Your task to perform on an android device: refresh tabs in the chrome app Image 0: 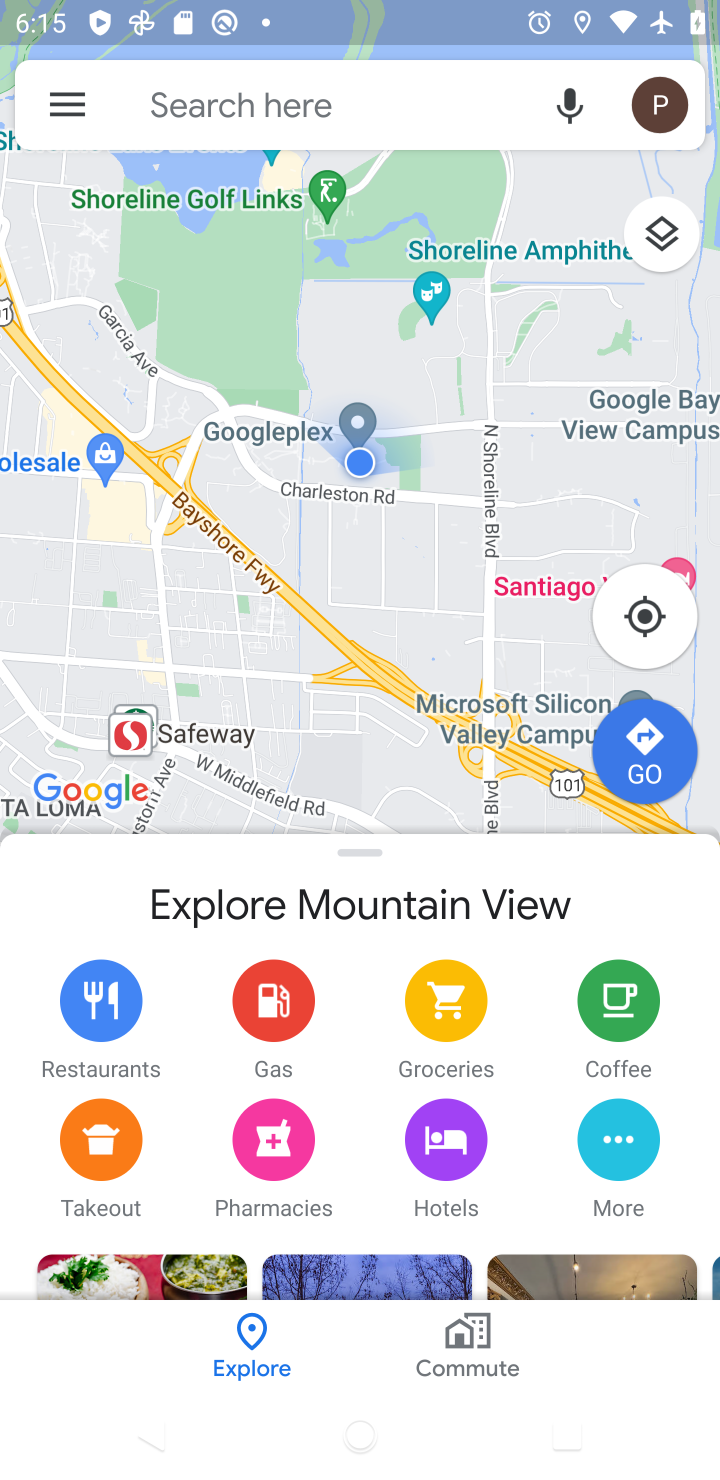
Step 0: press home button
Your task to perform on an android device: refresh tabs in the chrome app Image 1: 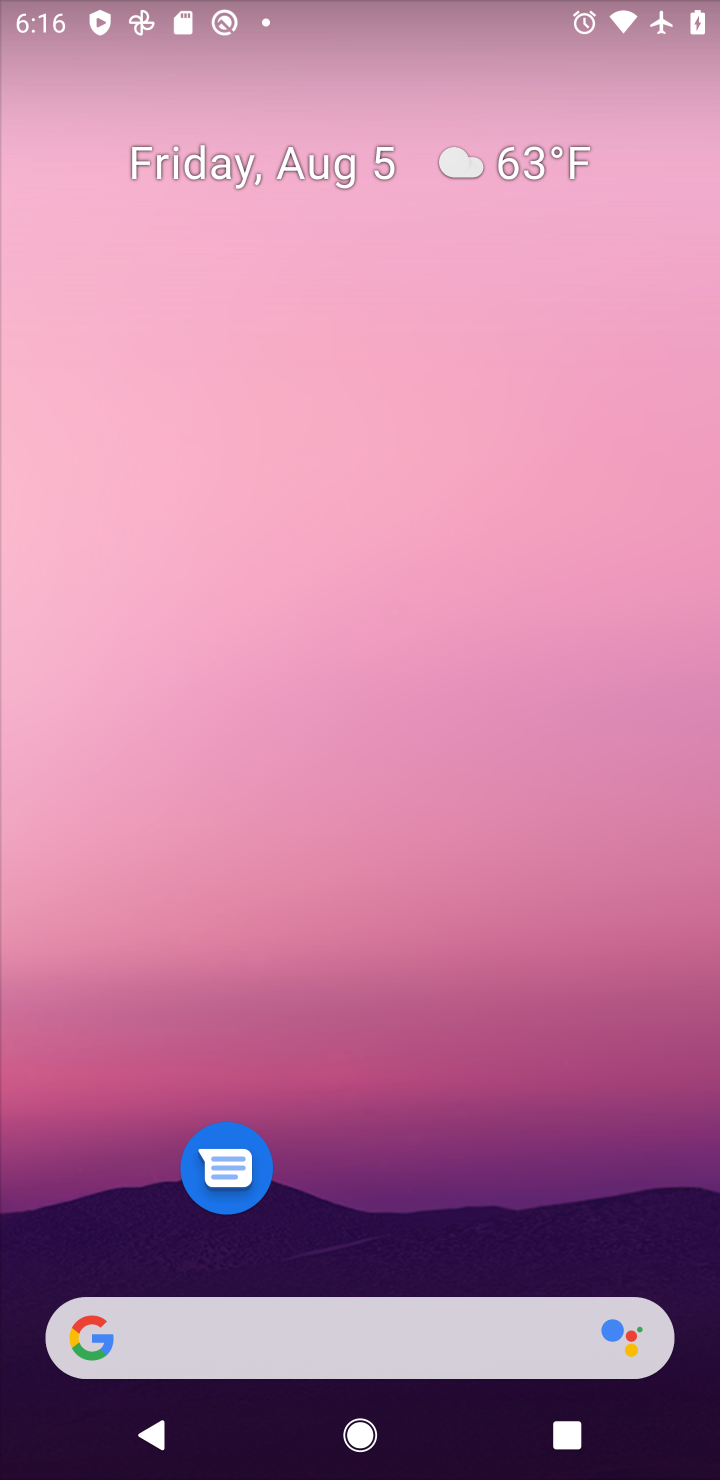
Step 1: drag from (422, 1278) to (606, 420)
Your task to perform on an android device: refresh tabs in the chrome app Image 2: 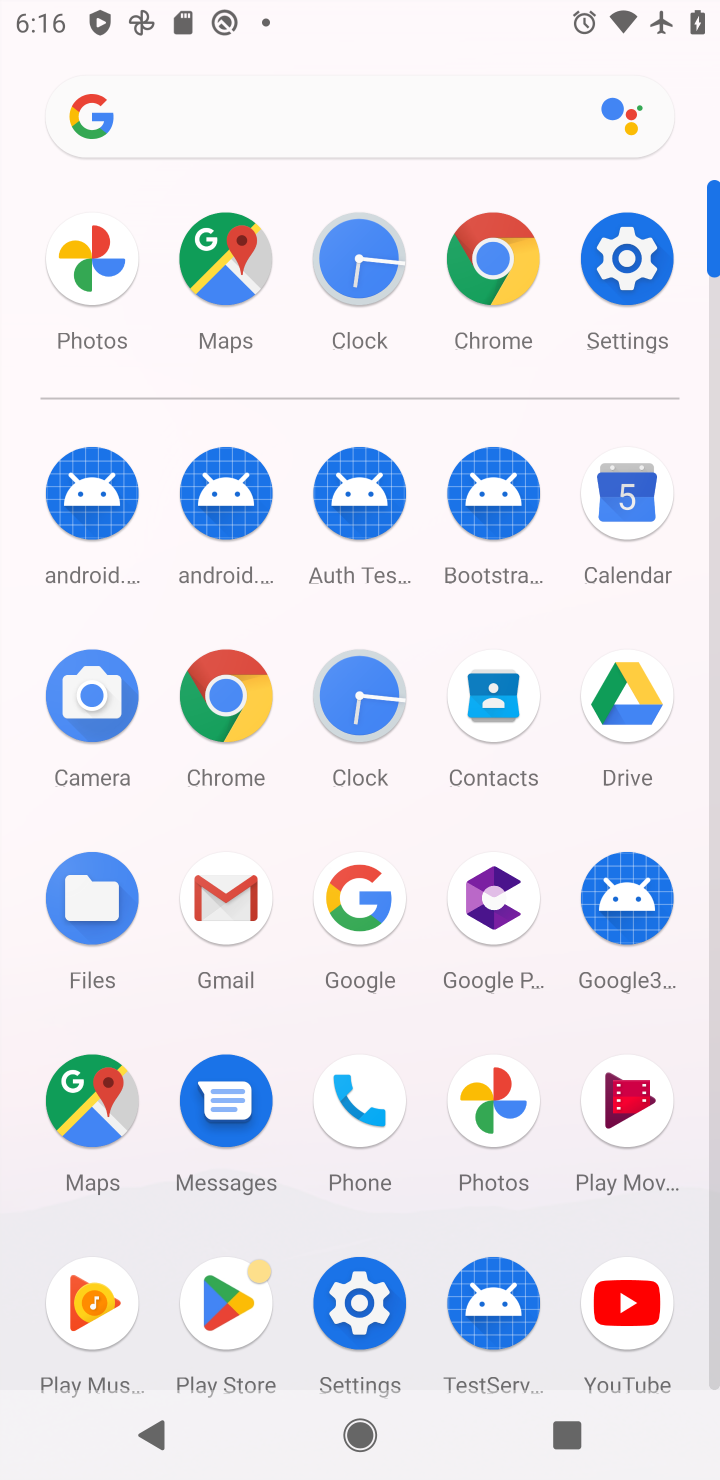
Step 2: click (460, 275)
Your task to perform on an android device: refresh tabs in the chrome app Image 3: 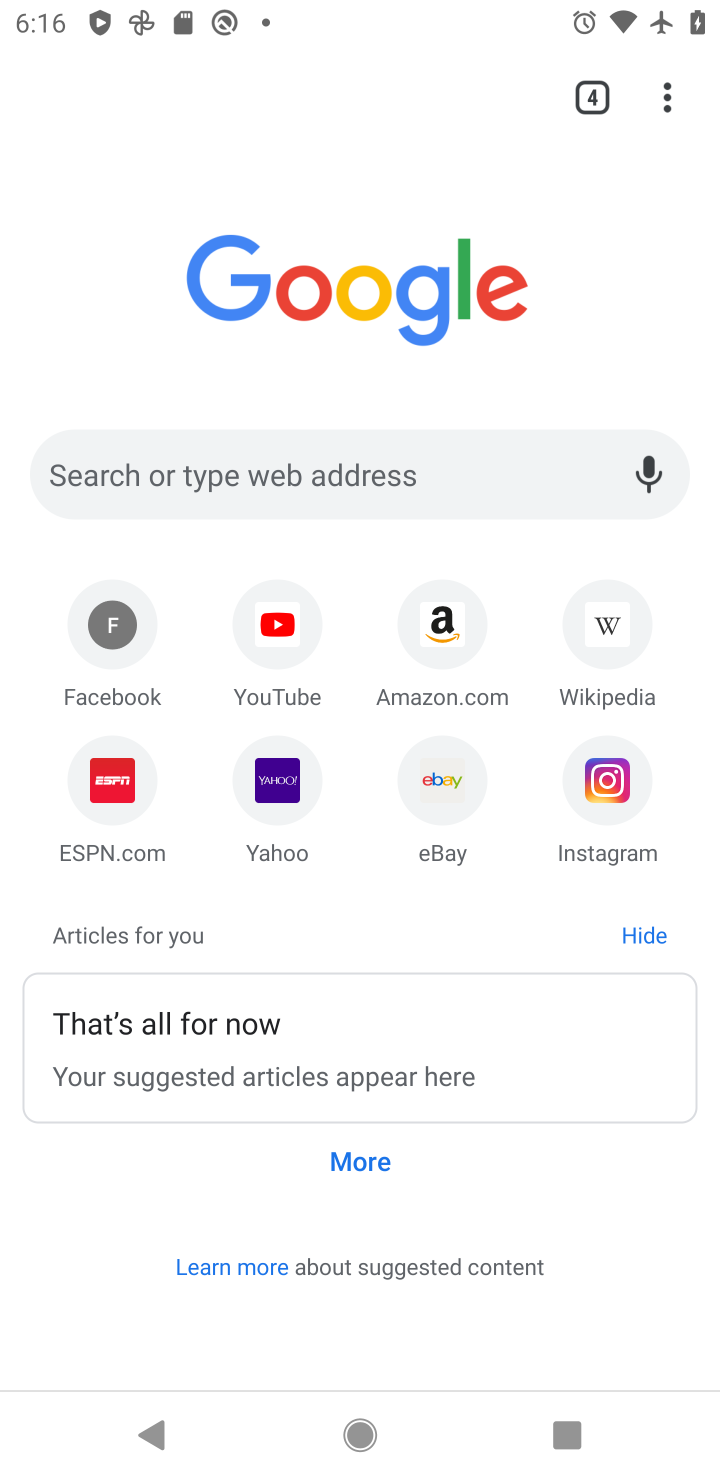
Step 3: click (664, 105)
Your task to perform on an android device: refresh tabs in the chrome app Image 4: 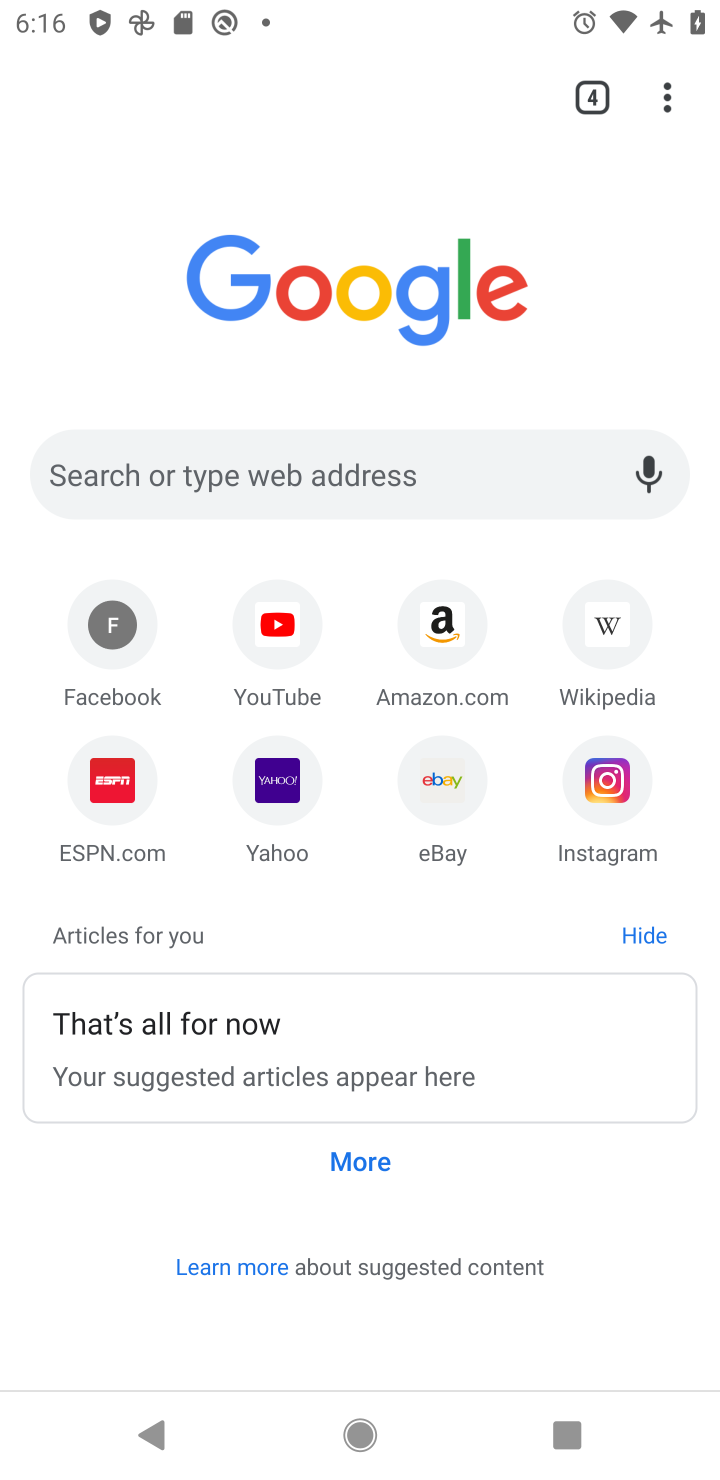
Step 4: task complete